Your task to perform on an android device: Go to sound settings Image 0: 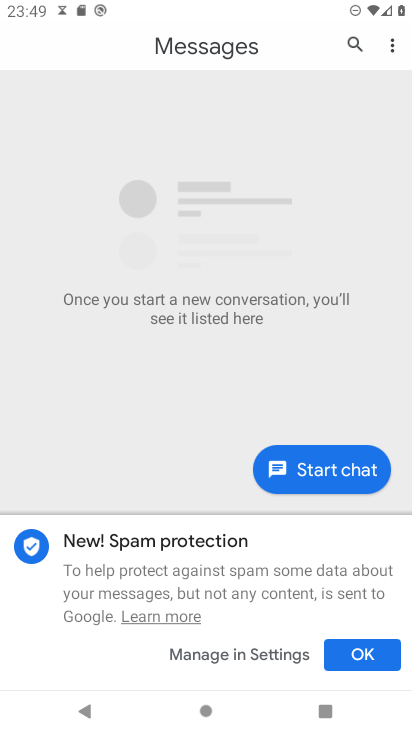
Step 0: press home button
Your task to perform on an android device: Go to sound settings Image 1: 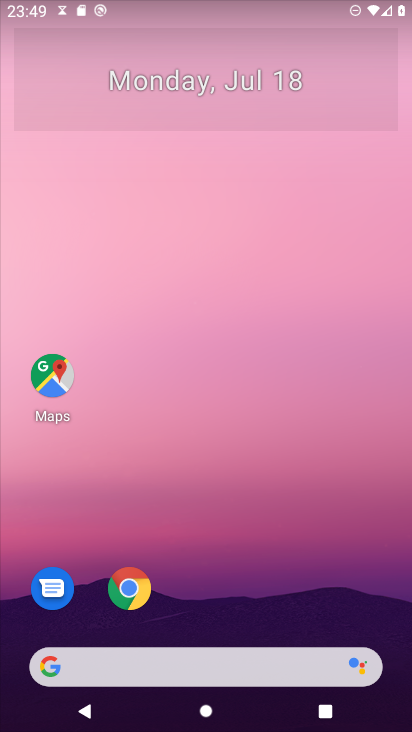
Step 1: drag from (273, 575) to (340, 41)
Your task to perform on an android device: Go to sound settings Image 2: 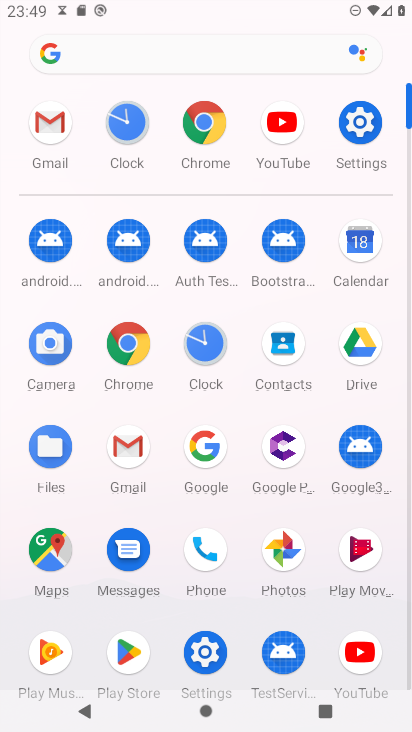
Step 2: click (366, 112)
Your task to perform on an android device: Go to sound settings Image 3: 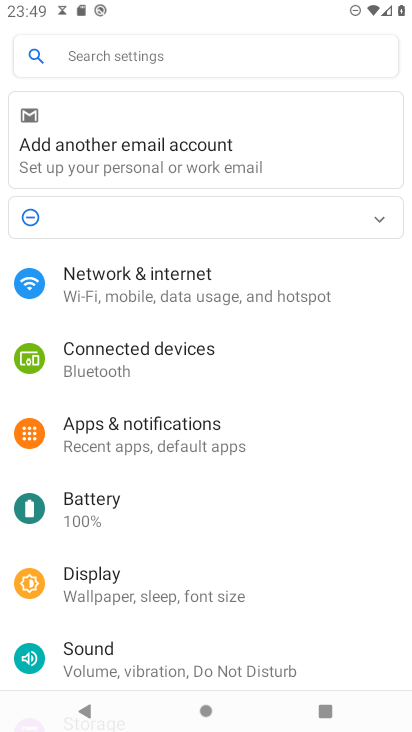
Step 3: click (82, 657)
Your task to perform on an android device: Go to sound settings Image 4: 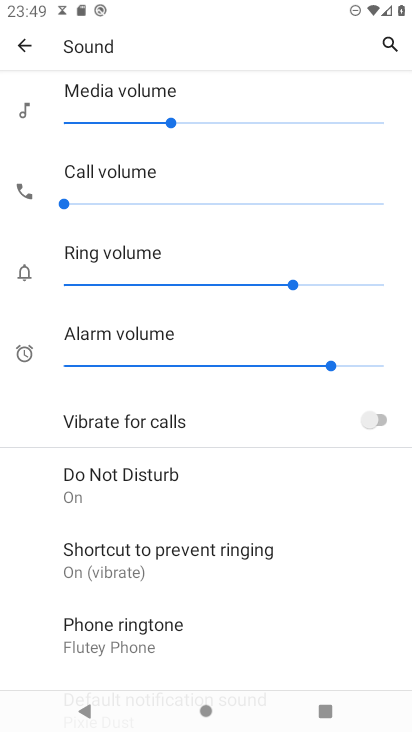
Step 4: task complete